Your task to perform on an android device: delete the emails in spam in the gmail app Image 0: 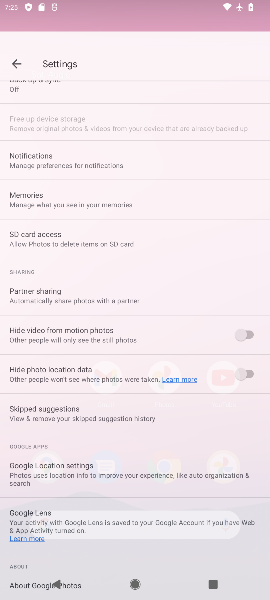
Step 0: press home button
Your task to perform on an android device: delete the emails in spam in the gmail app Image 1: 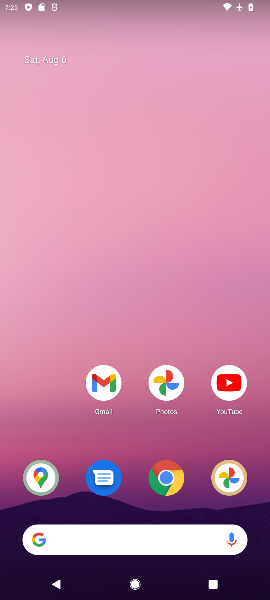
Step 1: press home button
Your task to perform on an android device: delete the emails in spam in the gmail app Image 2: 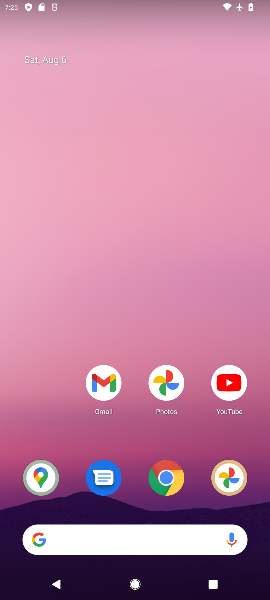
Step 2: press home button
Your task to perform on an android device: delete the emails in spam in the gmail app Image 3: 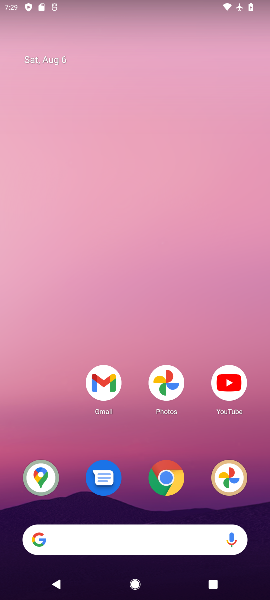
Step 3: press home button
Your task to perform on an android device: delete the emails in spam in the gmail app Image 4: 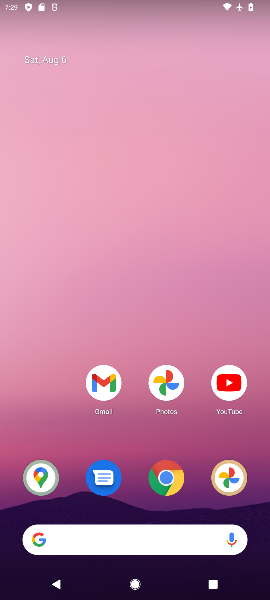
Step 4: click (105, 375)
Your task to perform on an android device: delete the emails in spam in the gmail app Image 5: 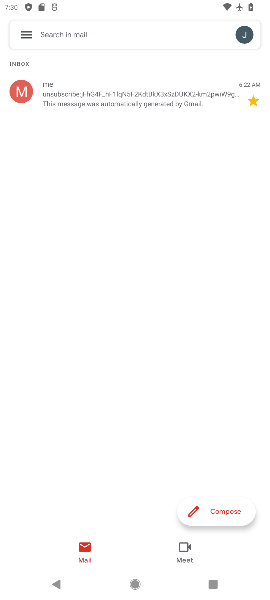
Step 5: click (27, 32)
Your task to perform on an android device: delete the emails in spam in the gmail app Image 6: 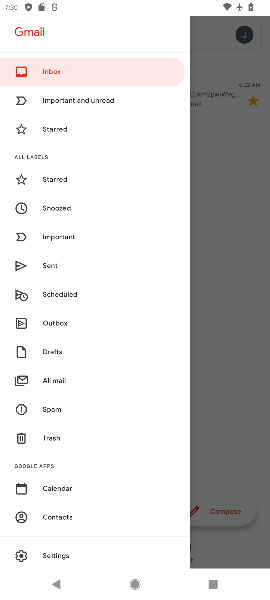
Step 6: click (56, 408)
Your task to perform on an android device: delete the emails in spam in the gmail app Image 7: 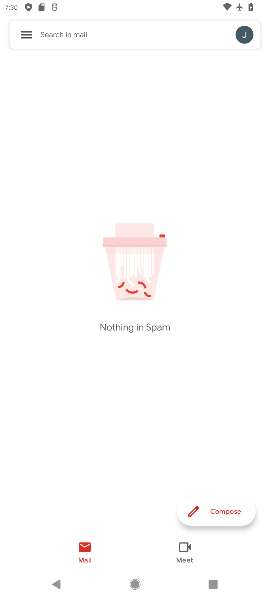
Step 7: task complete